Your task to perform on an android device: choose inbox layout in the gmail app Image 0: 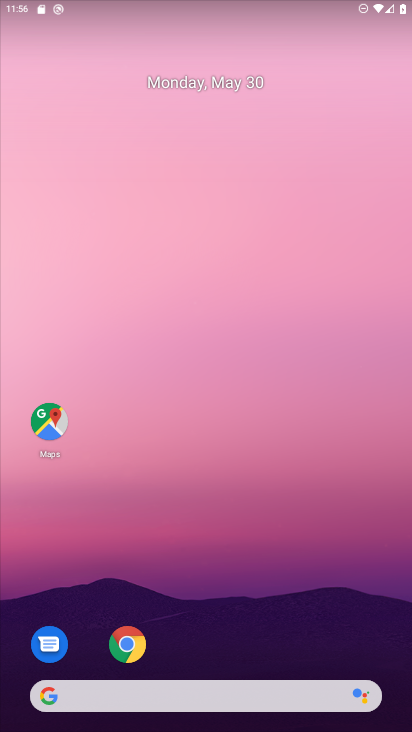
Step 0: drag from (209, 655) to (255, 279)
Your task to perform on an android device: choose inbox layout in the gmail app Image 1: 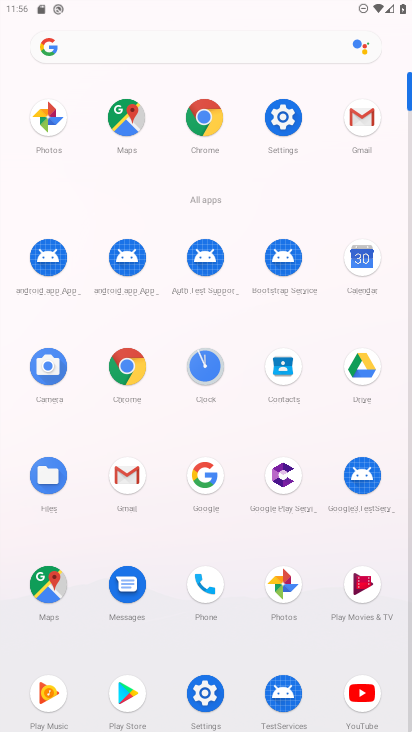
Step 1: click (122, 473)
Your task to perform on an android device: choose inbox layout in the gmail app Image 2: 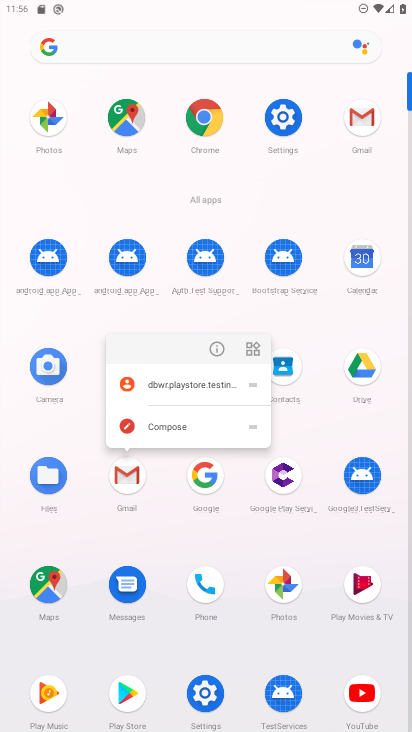
Step 2: click (228, 343)
Your task to perform on an android device: choose inbox layout in the gmail app Image 3: 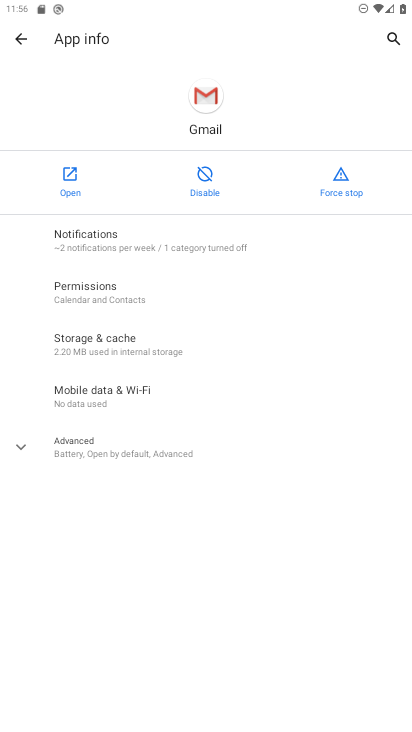
Step 3: click (61, 190)
Your task to perform on an android device: choose inbox layout in the gmail app Image 4: 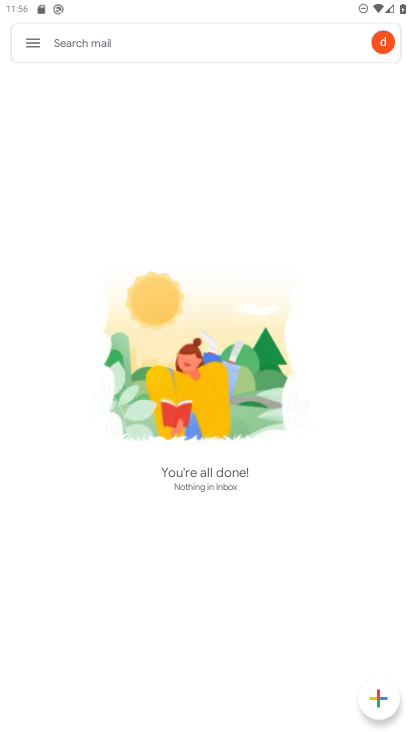
Step 4: click (48, 48)
Your task to perform on an android device: choose inbox layout in the gmail app Image 5: 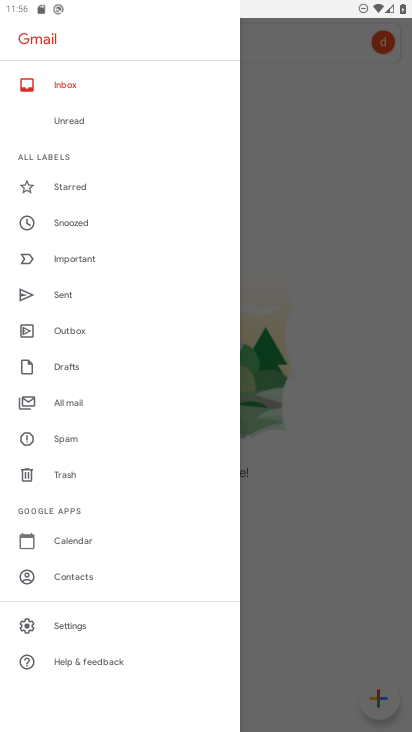
Step 5: click (84, 89)
Your task to perform on an android device: choose inbox layout in the gmail app Image 6: 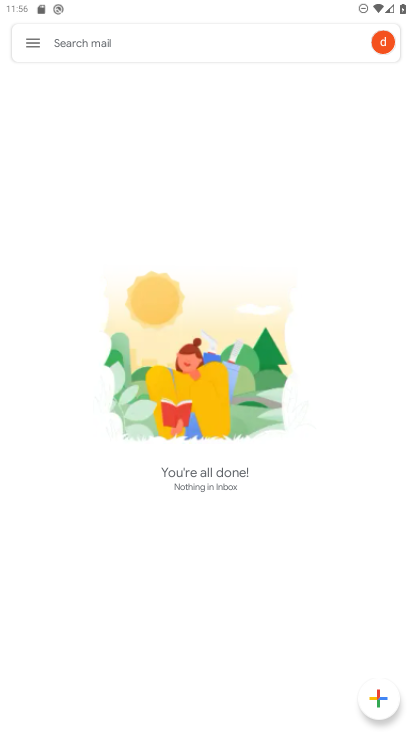
Step 6: task complete